Your task to perform on an android device: Go to Yahoo.com Image 0: 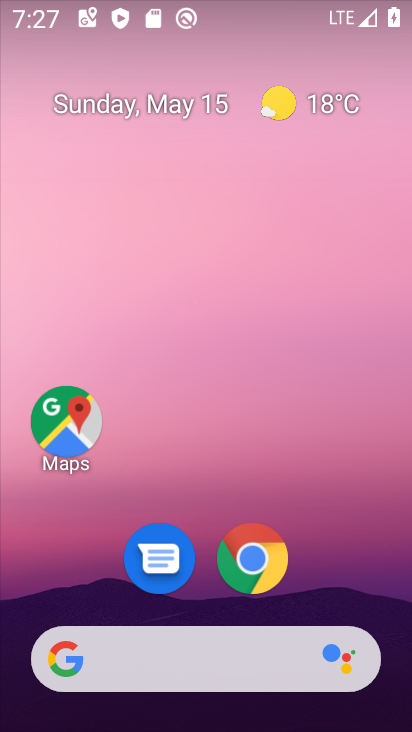
Step 0: click (256, 562)
Your task to perform on an android device: Go to Yahoo.com Image 1: 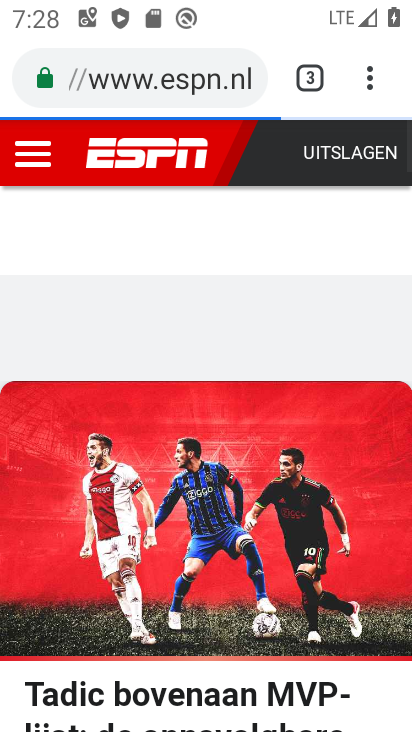
Step 1: click (367, 76)
Your task to perform on an android device: Go to Yahoo.com Image 2: 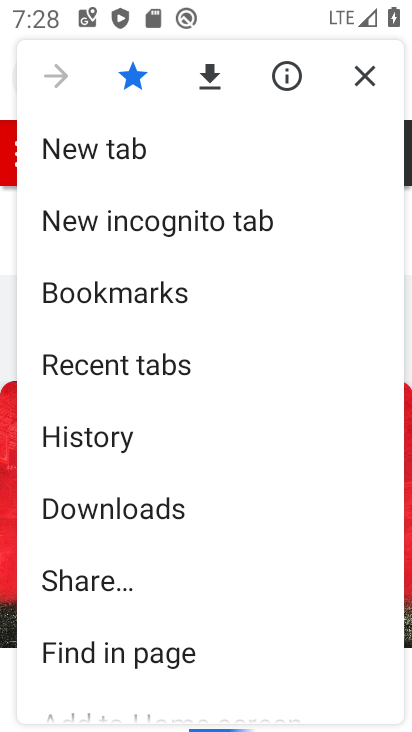
Step 2: click (104, 148)
Your task to perform on an android device: Go to Yahoo.com Image 3: 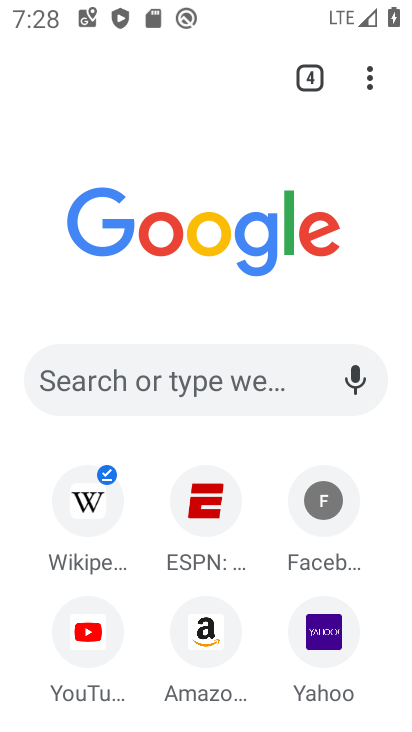
Step 3: click (327, 634)
Your task to perform on an android device: Go to Yahoo.com Image 4: 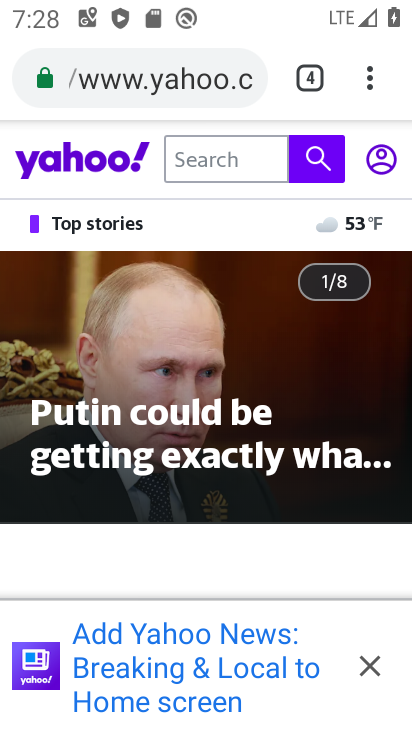
Step 4: task complete